Your task to perform on an android device: turn on airplane mode Image 0: 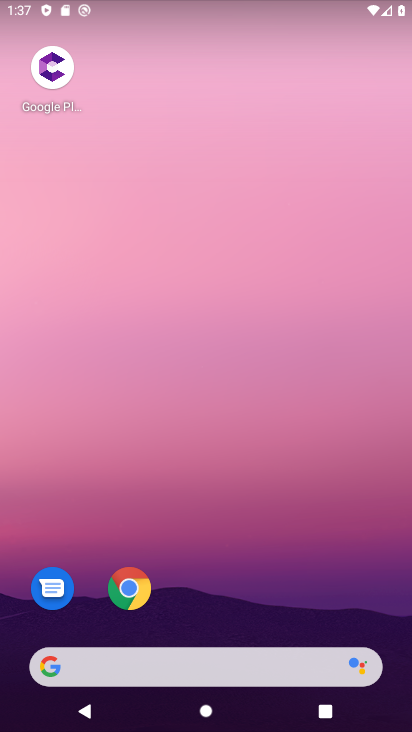
Step 0: drag from (298, 682) to (275, 83)
Your task to perform on an android device: turn on airplane mode Image 1: 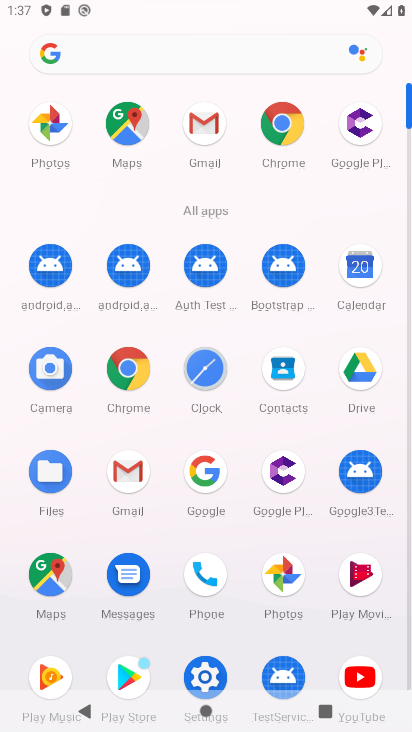
Step 1: click (195, 659)
Your task to perform on an android device: turn on airplane mode Image 2: 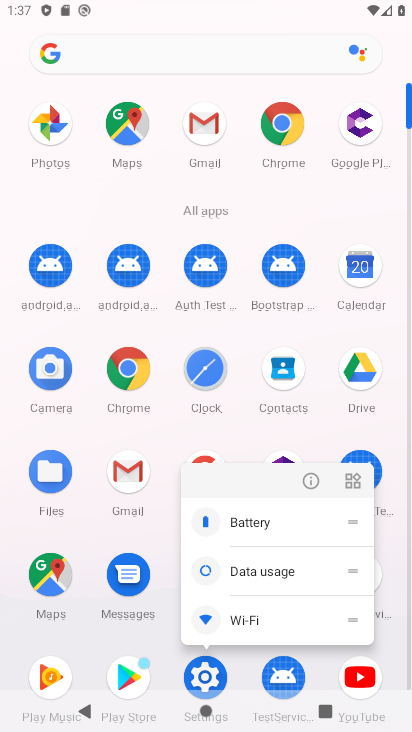
Step 2: click (197, 676)
Your task to perform on an android device: turn on airplane mode Image 3: 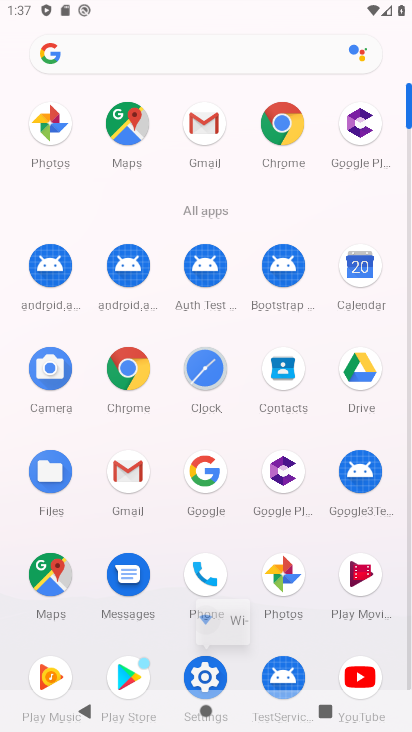
Step 3: click (197, 676)
Your task to perform on an android device: turn on airplane mode Image 4: 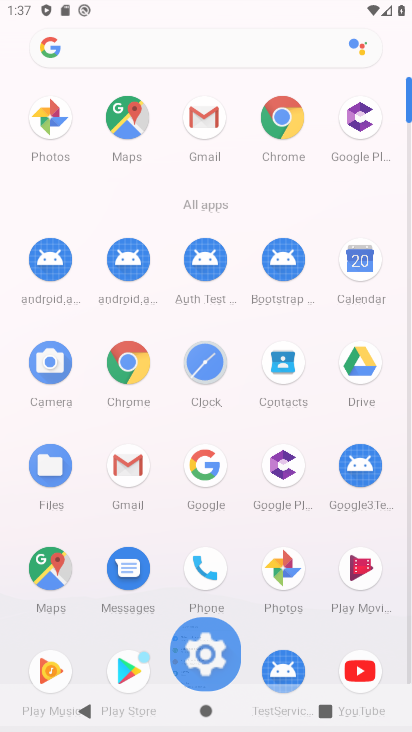
Step 4: click (207, 668)
Your task to perform on an android device: turn on airplane mode Image 5: 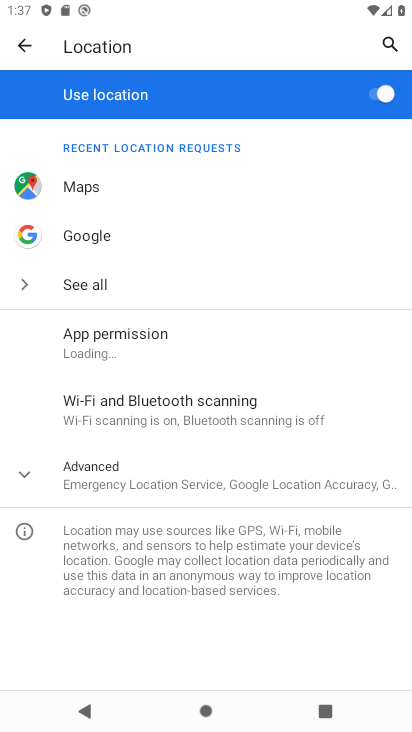
Step 5: click (21, 38)
Your task to perform on an android device: turn on airplane mode Image 6: 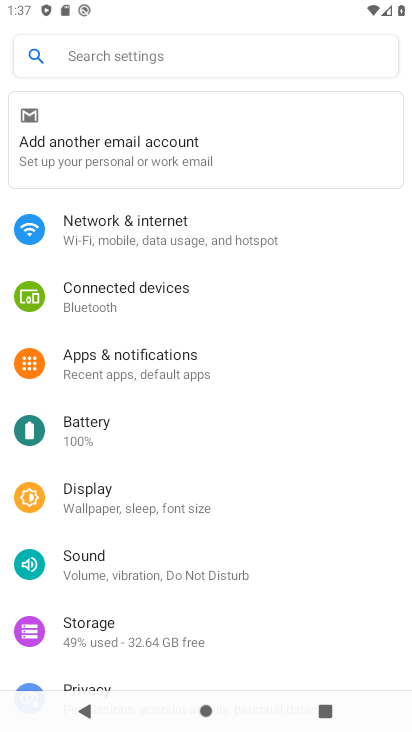
Step 6: click (111, 365)
Your task to perform on an android device: turn on airplane mode Image 7: 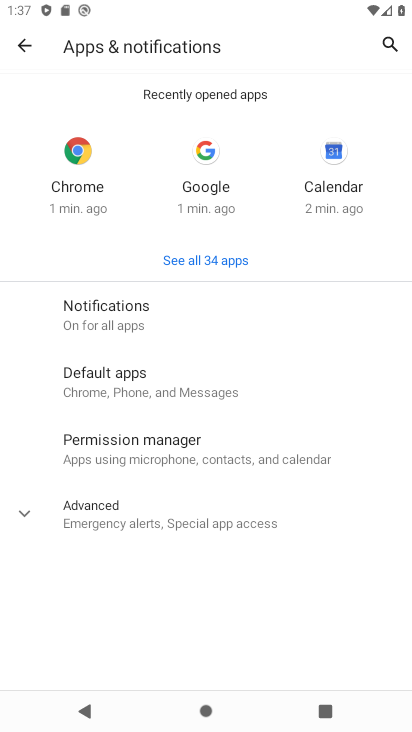
Step 7: click (19, 36)
Your task to perform on an android device: turn on airplane mode Image 8: 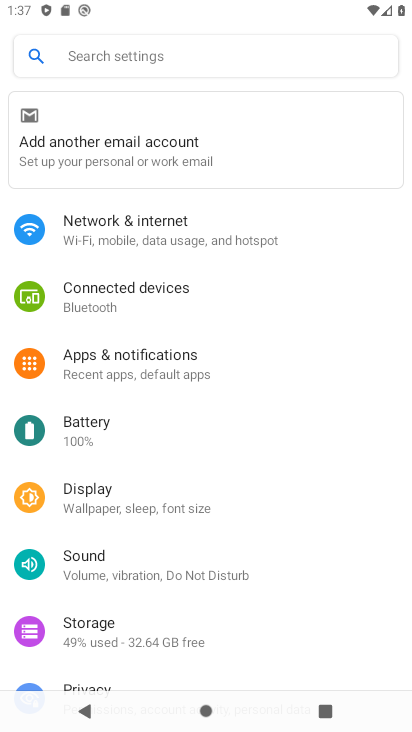
Step 8: click (155, 229)
Your task to perform on an android device: turn on airplane mode Image 9: 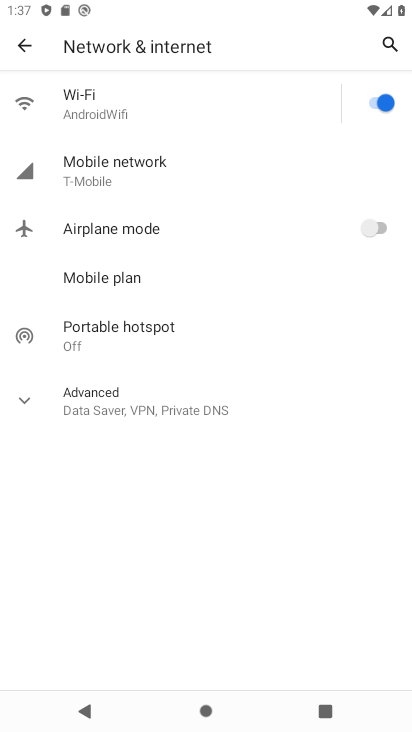
Step 9: task complete